Your task to perform on an android device: install app "Fetch Rewards" Image 0: 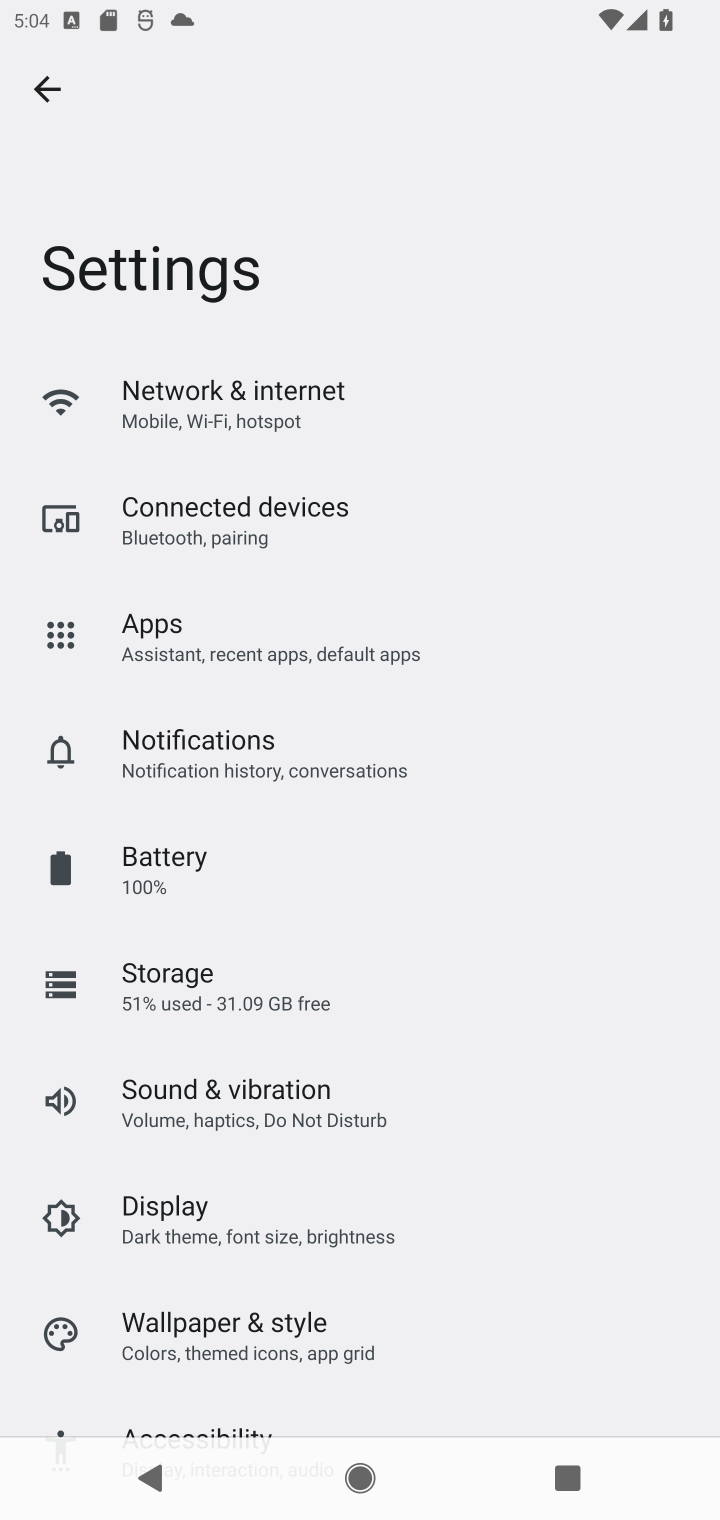
Step 0: press home button
Your task to perform on an android device: install app "Fetch Rewards" Image 1: 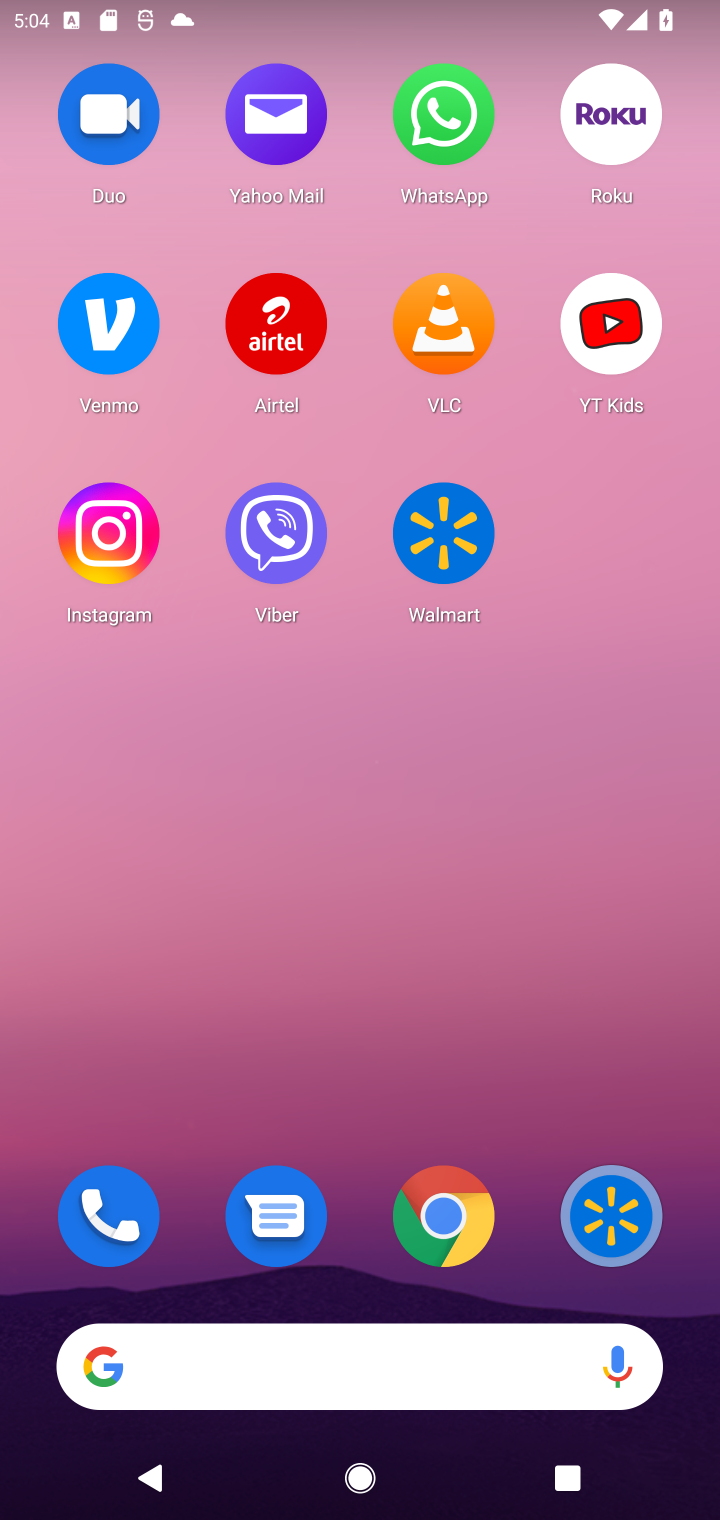
Step 1: drag from (389, 1077) to (429, 114)
Your task to perform on an android device: install app "Fetch Rewards" Image 2: 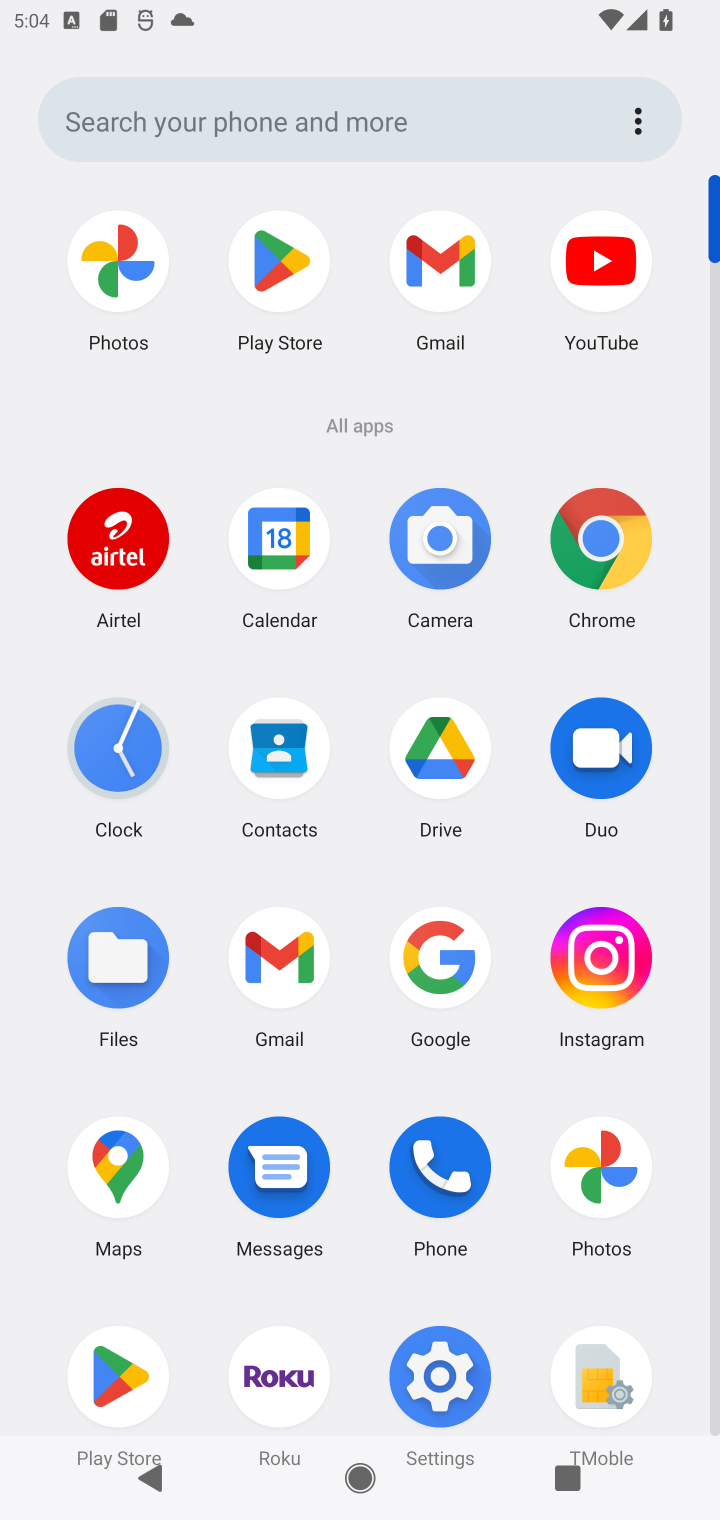
Step 2: click (280, 291)
Your task to perform on an android device: install app "Fetch Rewards" Image 3: 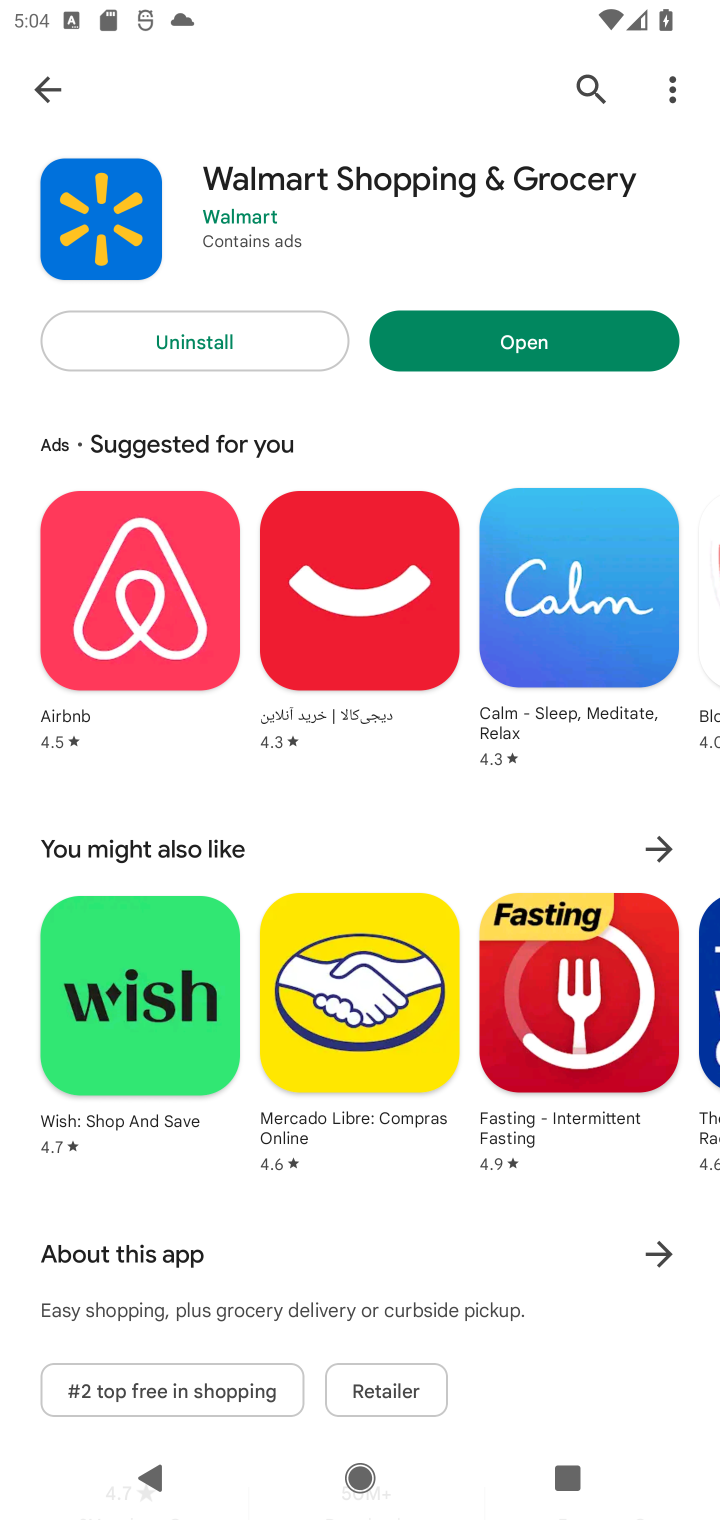
Step 3: click (594, 95)
Your task to perform on an android device: install app "Fetch Rewards" Image 4: 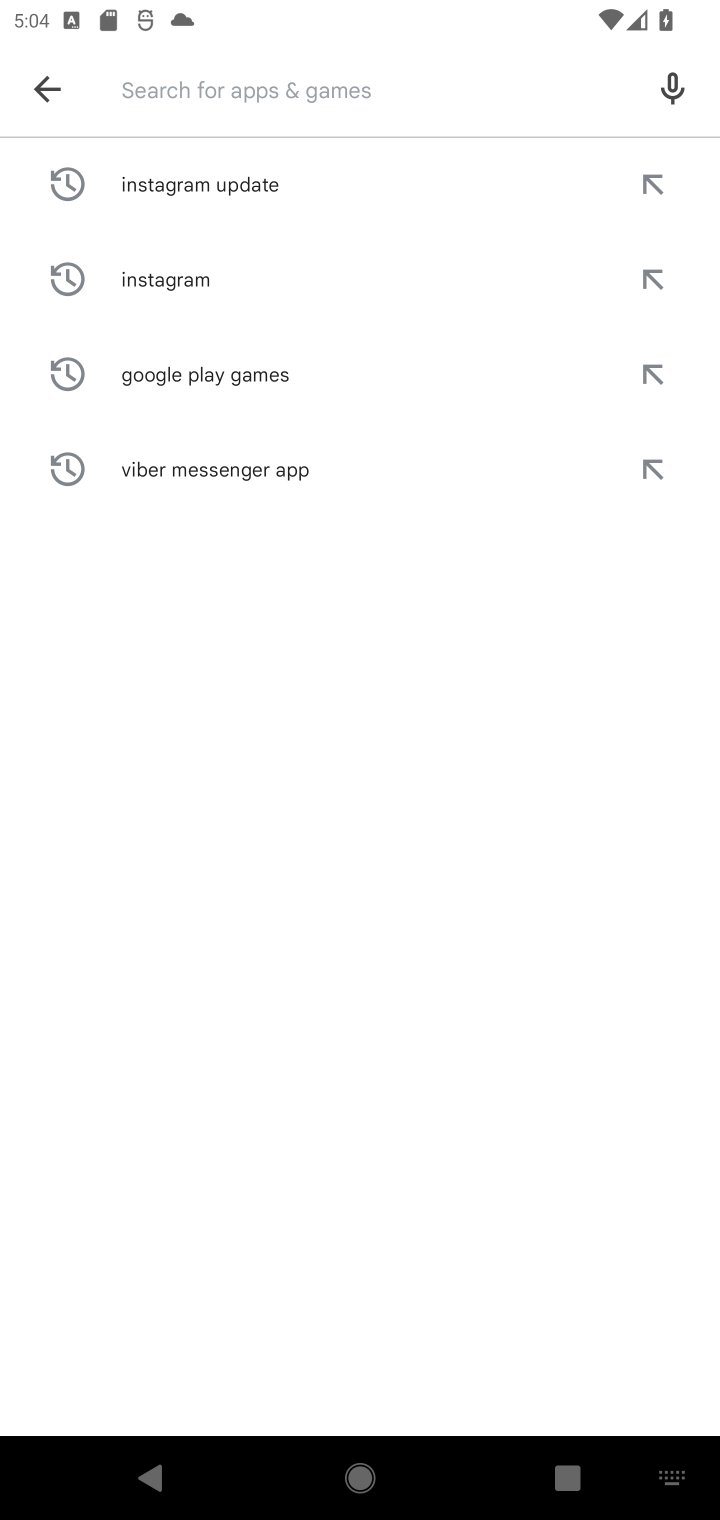
Step 4: type "Fetch Rewards"
Your task to perform on an android device: install app "Fetch Rewards" Image 5: 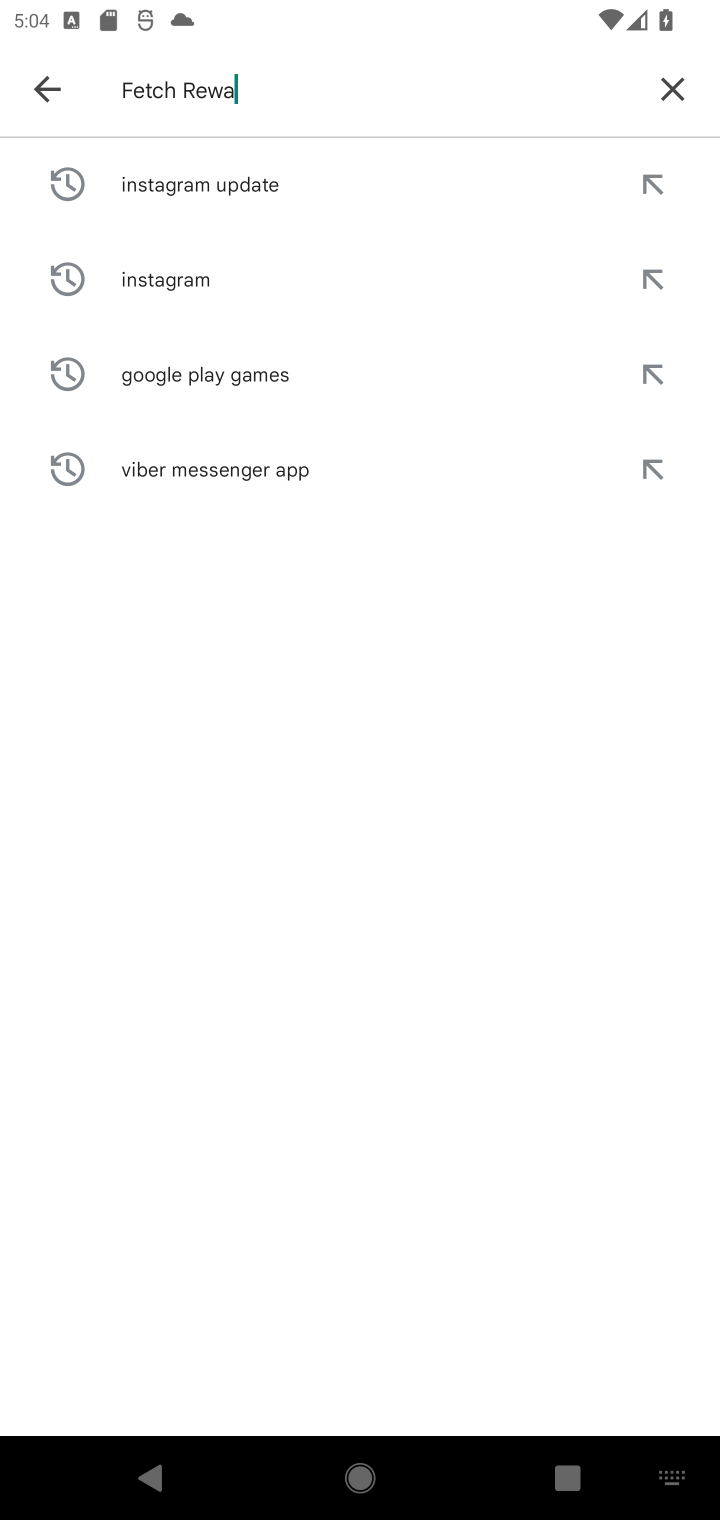
Step 5: type ""
Your task to perform on an android device: install app "Fetch Rewards" Image 6: 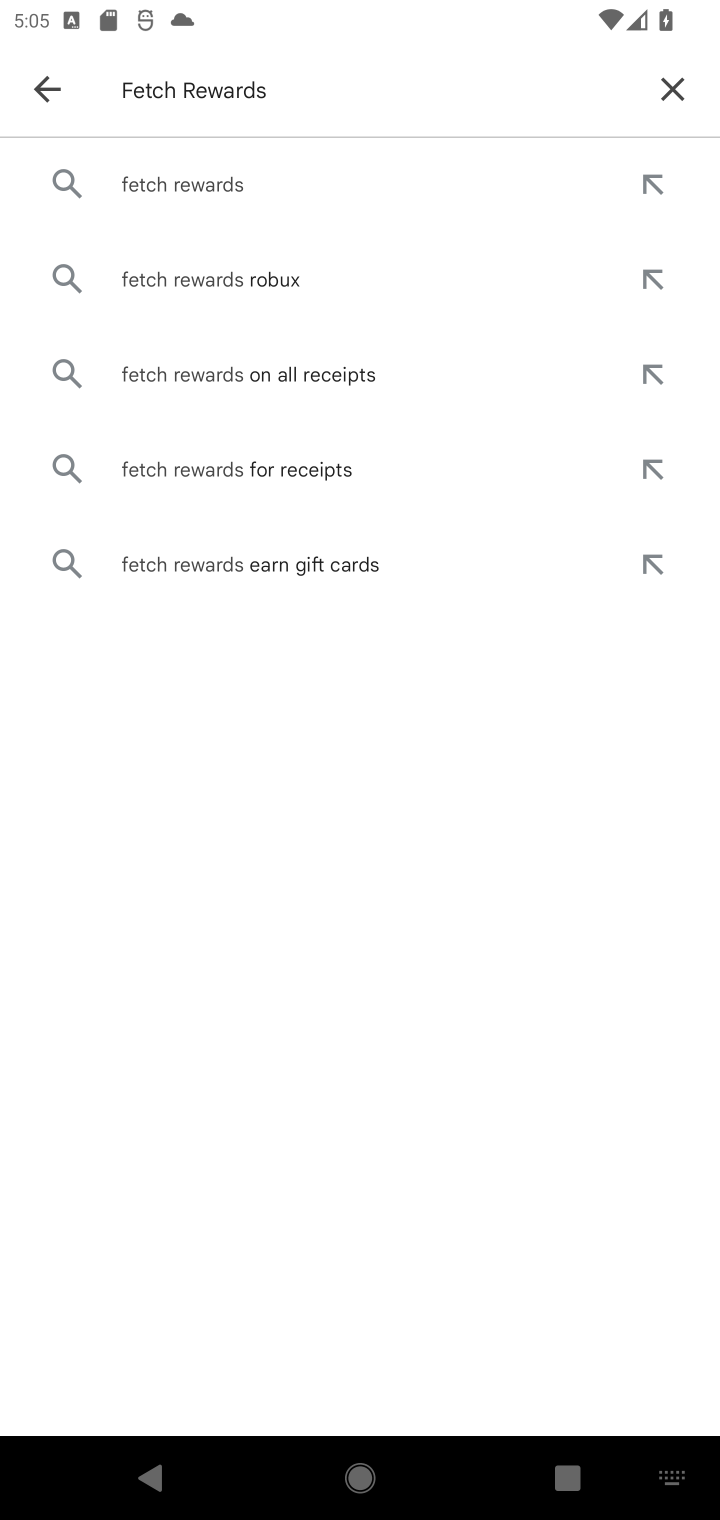
Step 6: click (275, 195)
Your task to perform on an android device: install app "Fetch Rewards" Image 7: 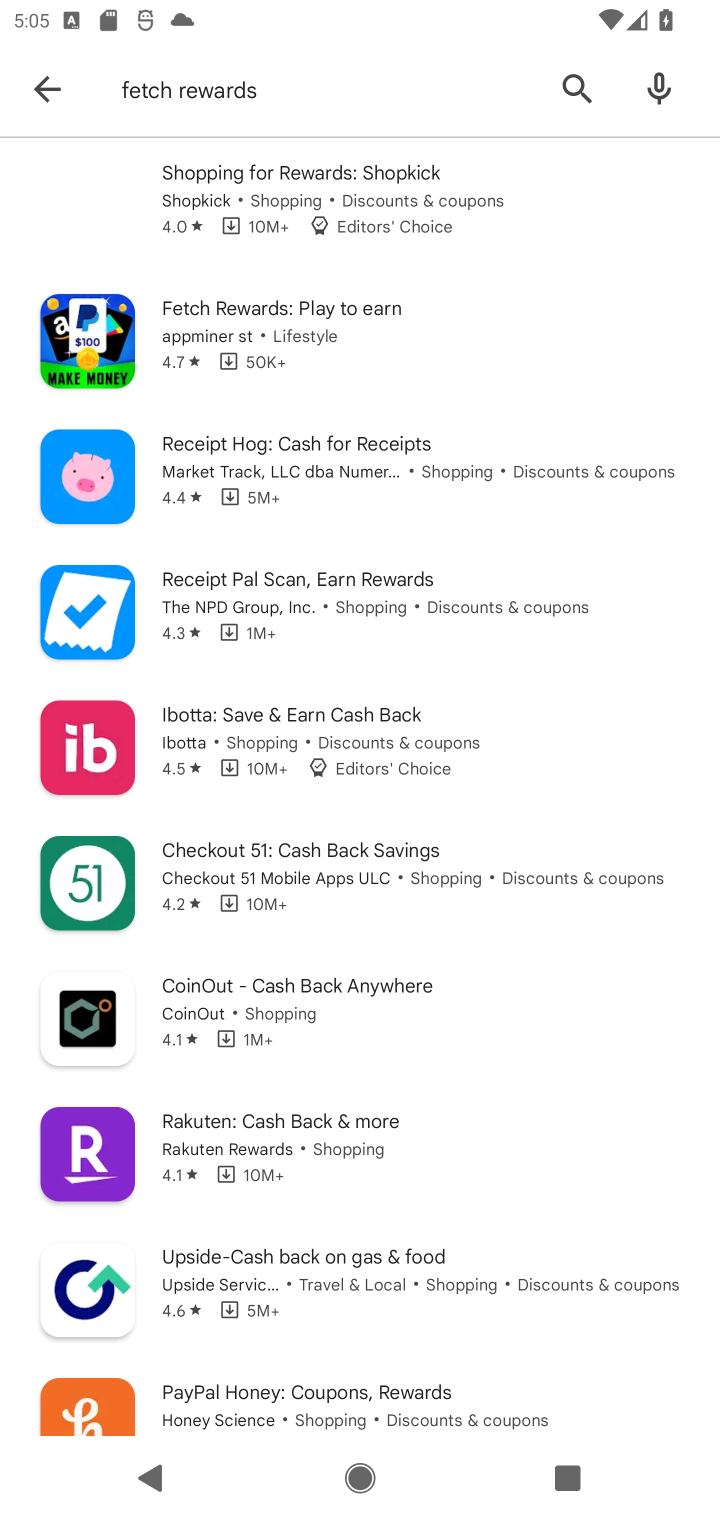
Step 7: task complete